Your task to perform on an android device: open the mobile data screen to see how much data has been used Image 0: 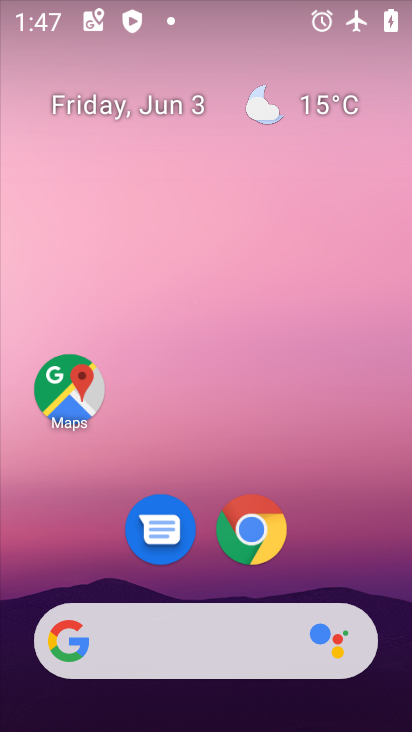
Step 0: drag from (381, 575) to (366, 219)
Your task to perform on an android device: open the mobile data screen to see how much data has been used Image 1: 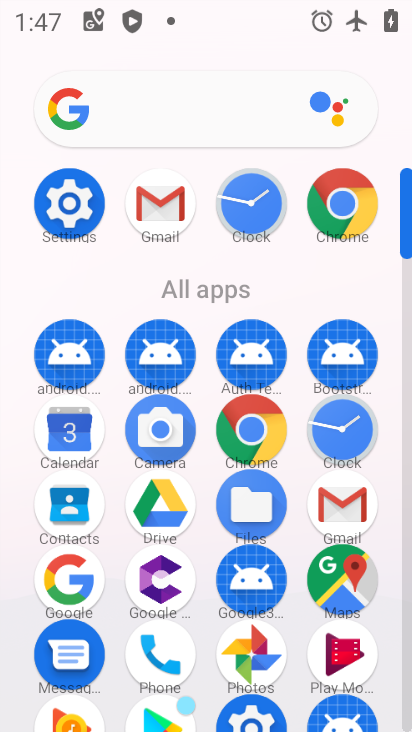
Step 1: click (79, 223)
Your task to perform on an android device: open the mobile data screen to see how much data has been used Image 2: 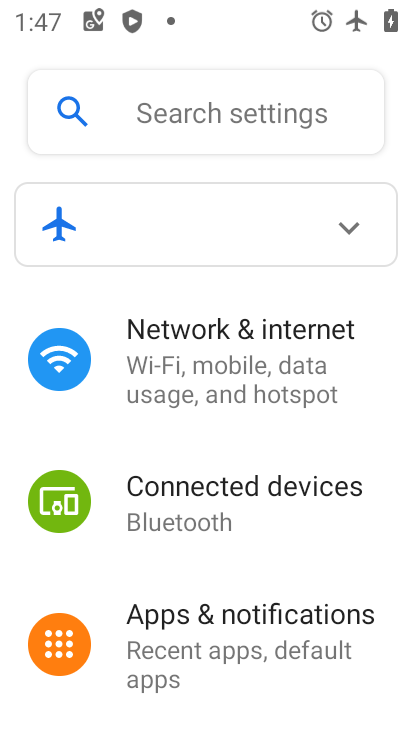
Step 2: click (295, 401)
Your task to perform on an android device: open the mobile data screen to see how much data has been used Image 3: 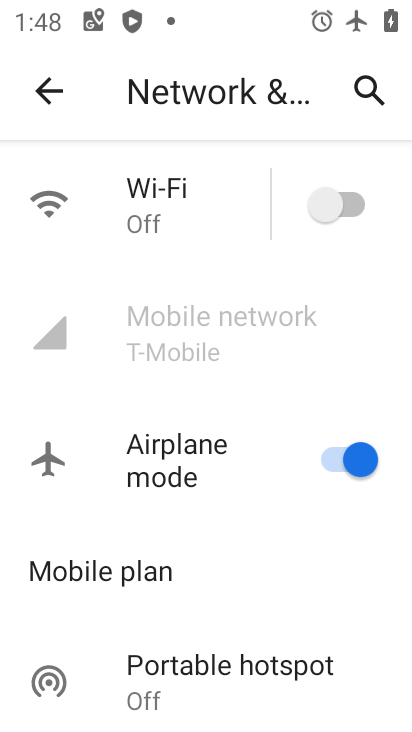
Step 3: task complete